Your task to perform on an android device: Open Reddit.com Image 0: 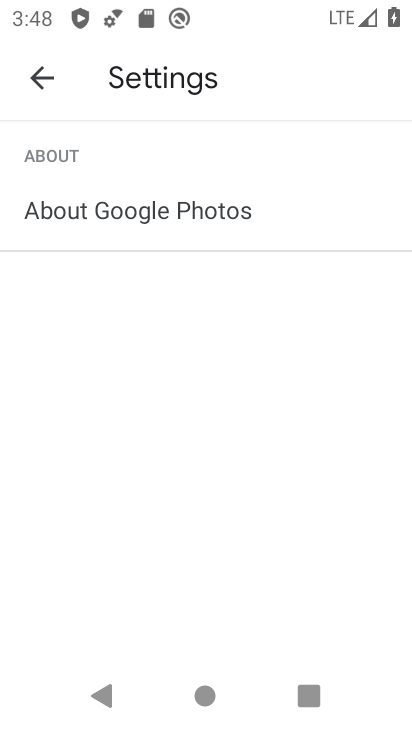
Step 0: press home button
Your task to perform on an android device: Open Reddit.com Image 1: 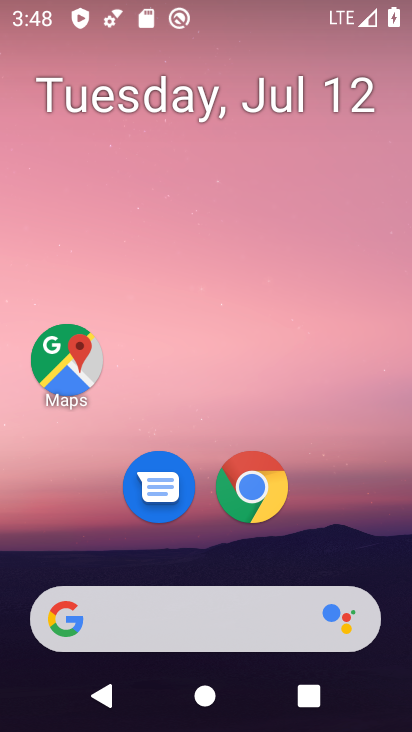
Step 1: drag from (221, 632) to (263, 182)
Your task to perform on an android device: Open Reddit.com Image 2: 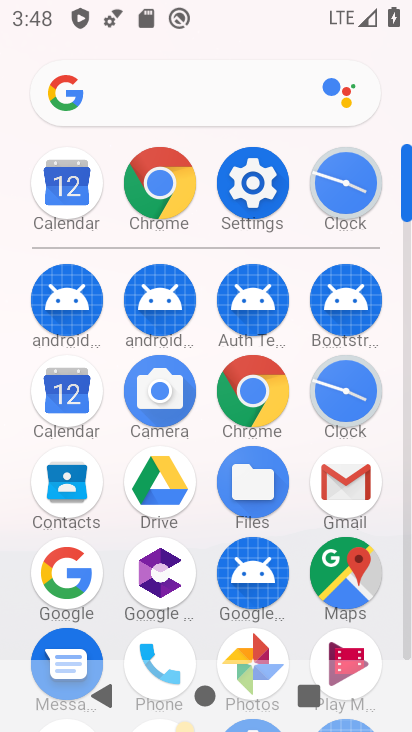
Step 2: click (166, 199)
Your task to perform on an android device: Open Reddit.com Image 3: 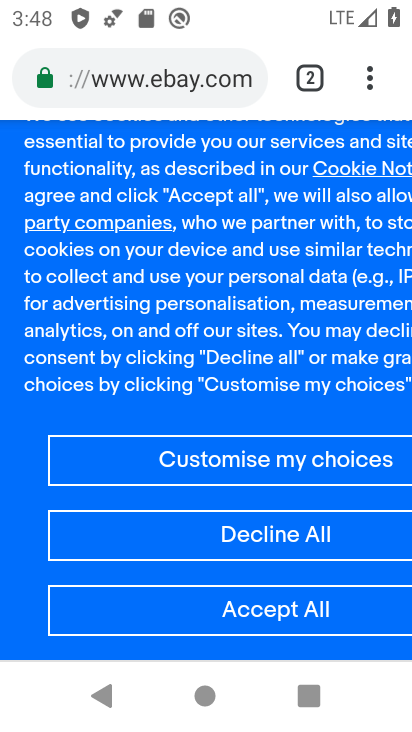
Step 3: click (213, 60)
Your task to perform on an android device: Open Reddit.com Image 4: 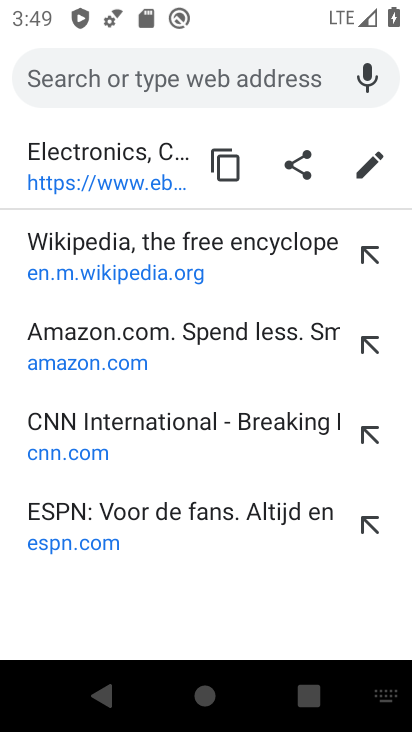
Step 4: type "reddit"
Your task to perform on an android device: Open Reddit.com Image 5: 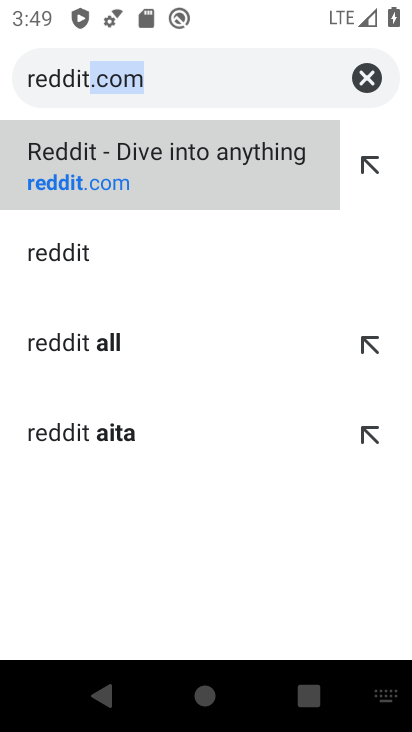
Step 5: click (111, 193)
Your task to perform on an android device: Open Reddit.com Image 6: 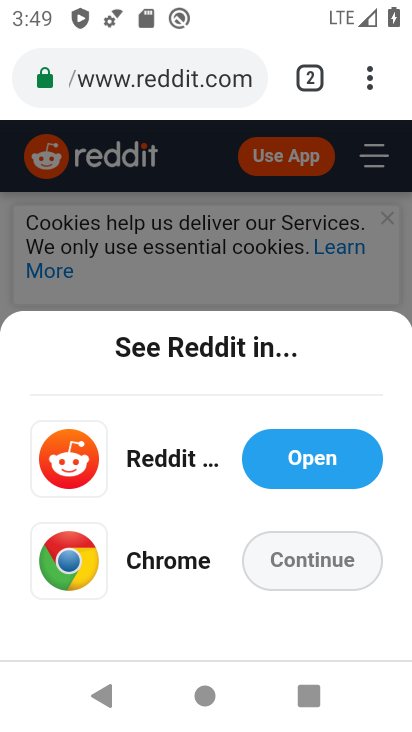
Step 6: task complete